Your task to perform on an android device: find photos in the google photos app Image 0: 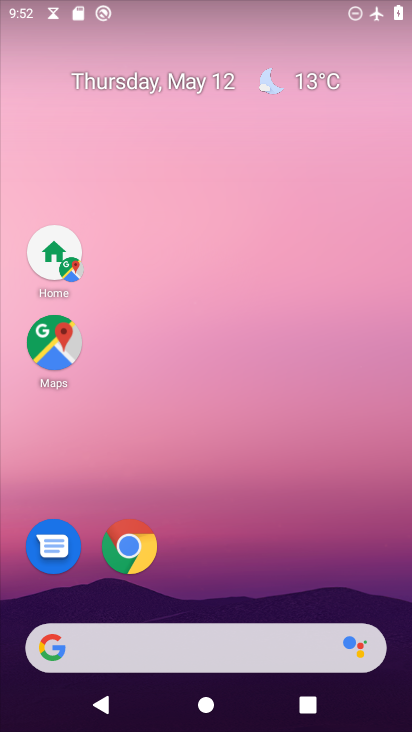
Step 0: drag from (145, 667) to (316, 133)
Your task to perform on an android device: find photos in the google photos app Image 1: 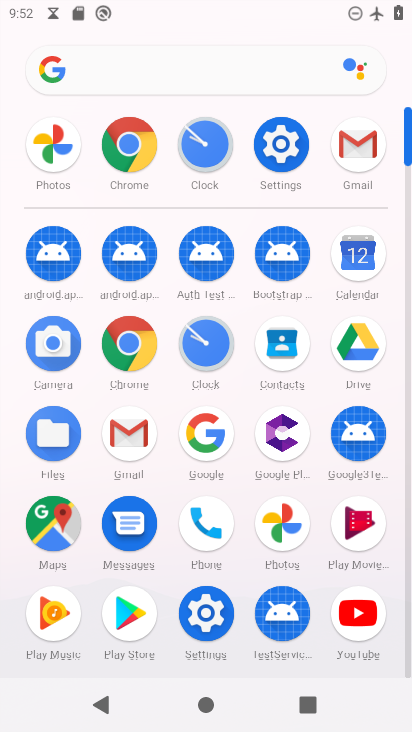
Step 1: click (281, 522)
Your task to perform on an android device: find photos in the google photos app Image 2: 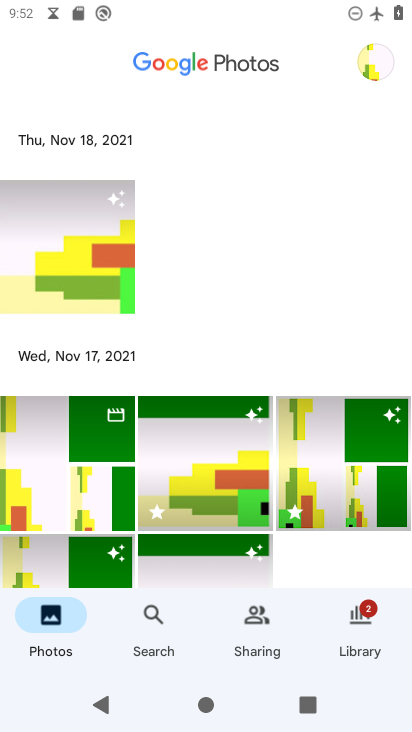
Step 2: task complete